Your task to perform on an android device: clear history in the chrome app Image 0: 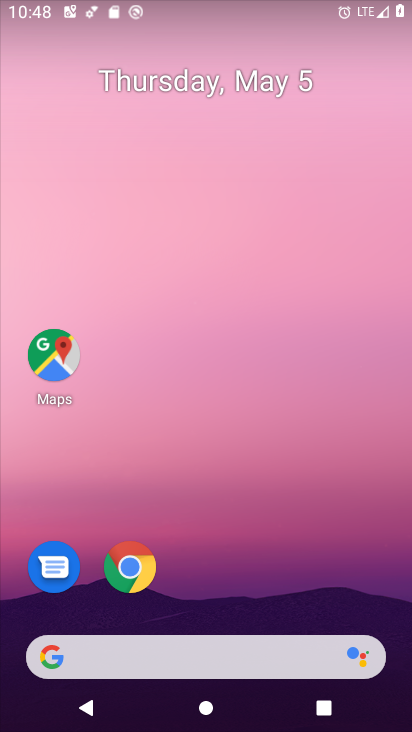
Step 0: click (132, 563)
Your task to perform on an android device: clear history in the chrome app Image 1: 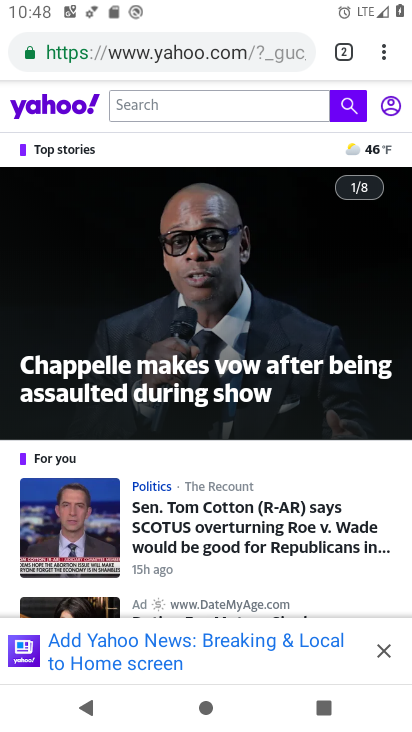
Step 1: click (391, 51)
Your task to perform on an android device: clear history in the chrome app Image 2: 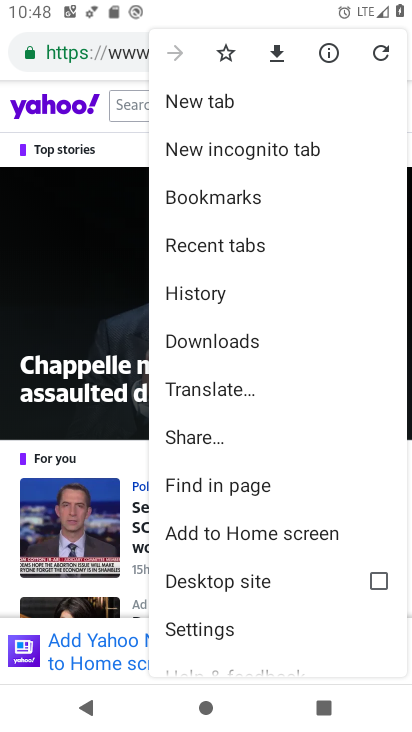
Step 2: click (213, 294)
Your task to perform on an android device: clear history in the chrome app Image 3: 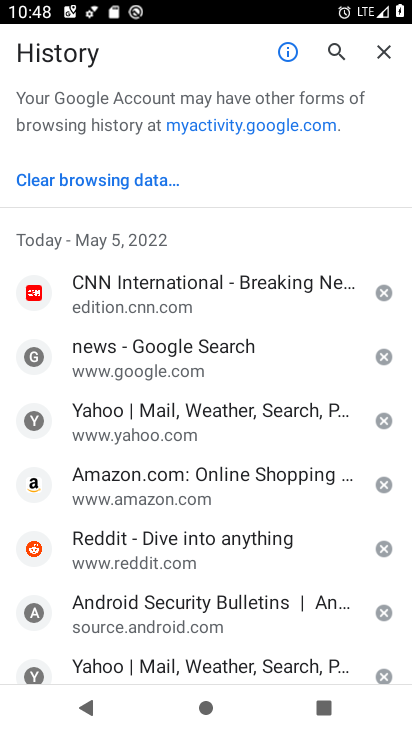
Step 3: click (137, 179)
Your task to perform on an android device: clear history in the chrome app Image 4: 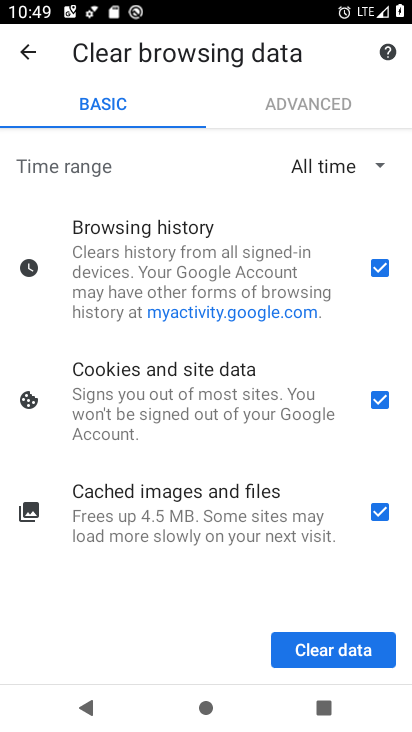
Step 4: click (358, 649)
Your task to perform on an android device: clear history in the chrome app Image 5: 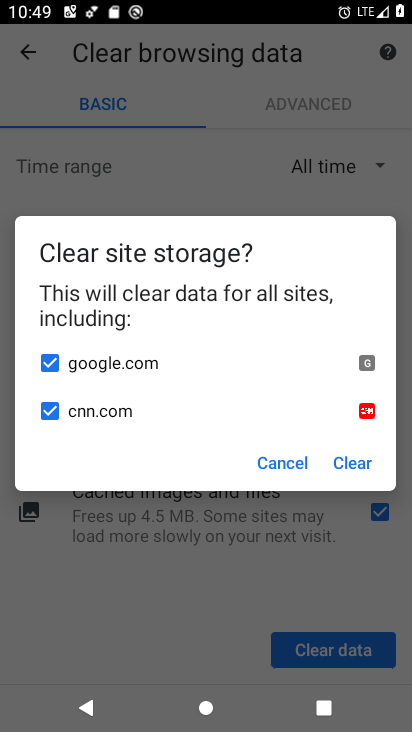
Step 5: click (351, 462)
Your task to perform on an android device: clear history in the chrome app Image 6: 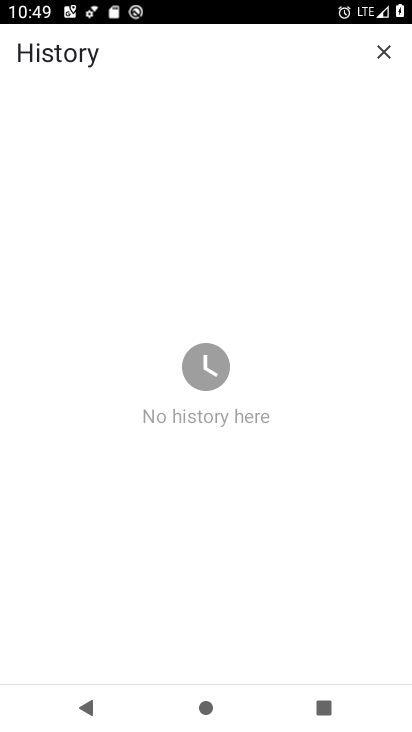
Step 6: task complete